Your task to perform on an android device: turn on improve location accuracy Image 0: 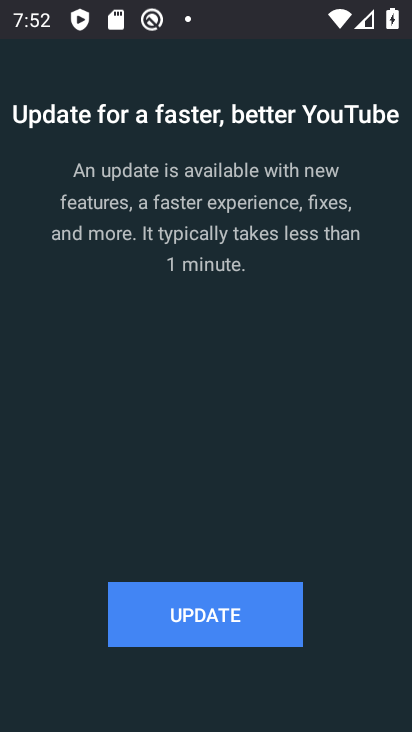
Step 0: press home button
Your task to perform on an android device: turn on improve location accuracy Image 1: 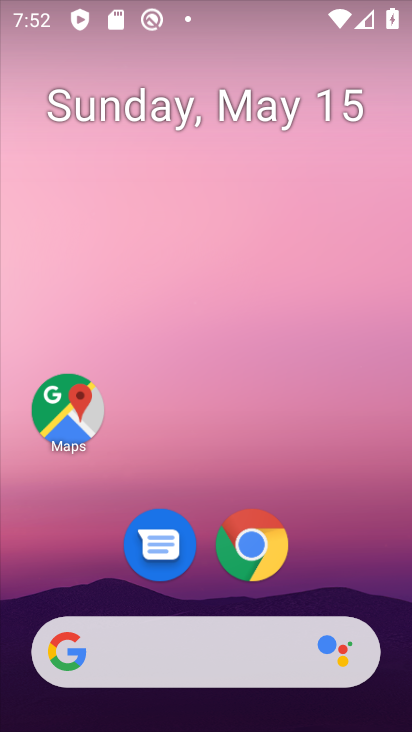
Step 1: drag from (353, 566) to (369, 68)
Your task to perform on an android device: turn on improve location accuracy Image 2: 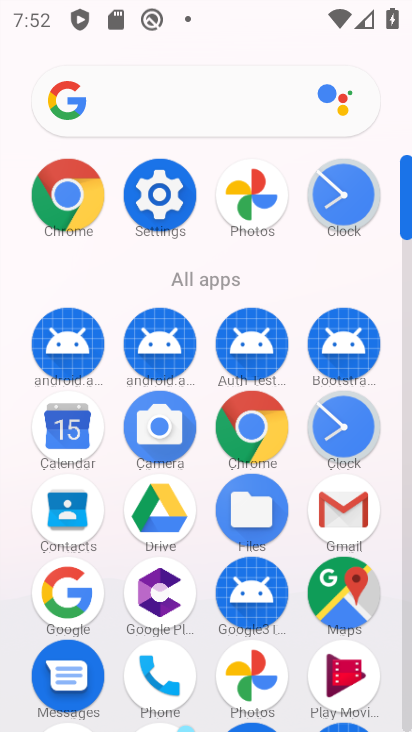
Step 2: click (172, 208)
Your task to perform on an android device: turn on improve location accuracy Image 3: 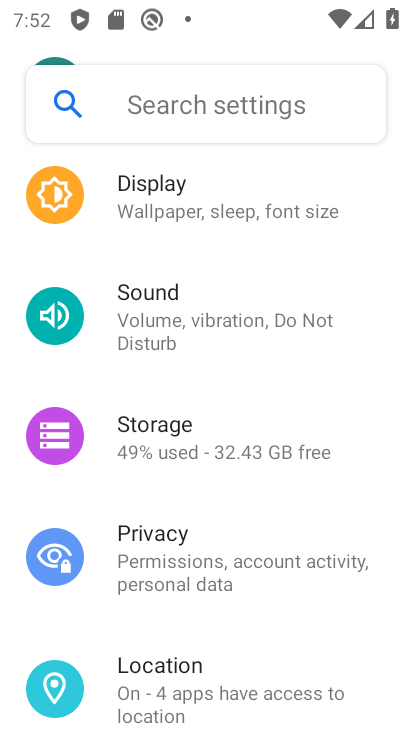
Step 3: drag from (389, 218) to (377, 430)
Your task to perform on an android device: turn on improve location accuracy Image 4: 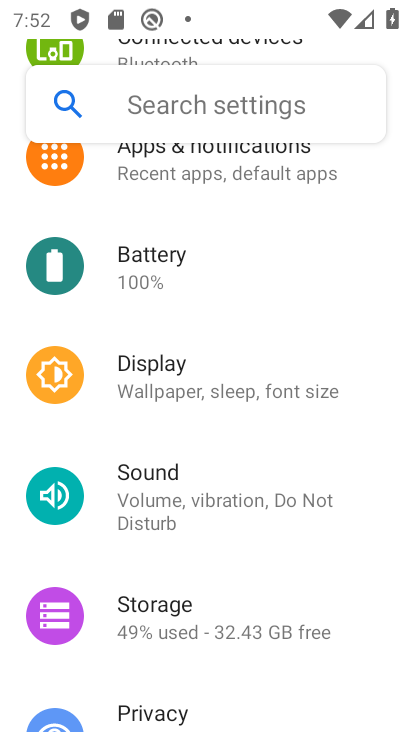
Step 4: drag from (359, 226) to (332, 483)
Your task to perform on an android device: turn on improve location accuracy Image 5: 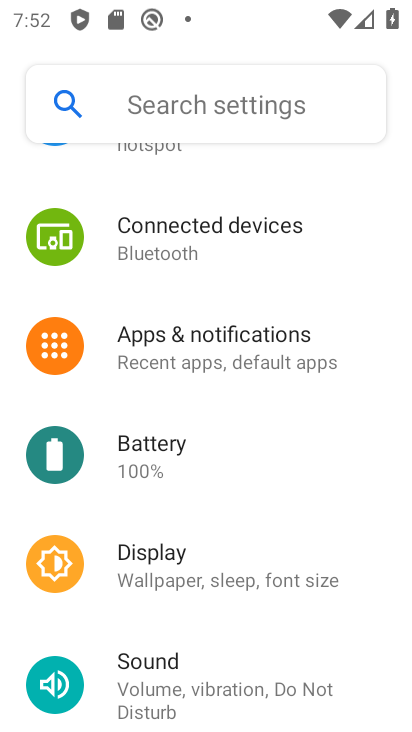
Step 5: drag from (371, 502) to (370, 337)
Your task to perform on an android device: turn on improve location accuracy Image 6: 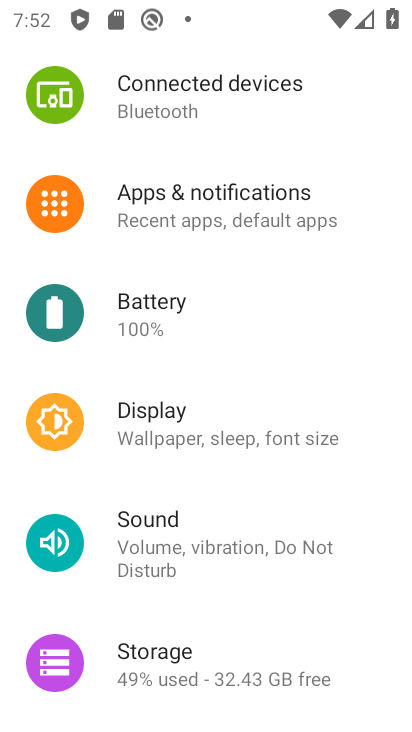
Step 6: drag from (373, 607) to (367, 354)
Your task to perform on an android device: turn on improve location accuracy Image 7: 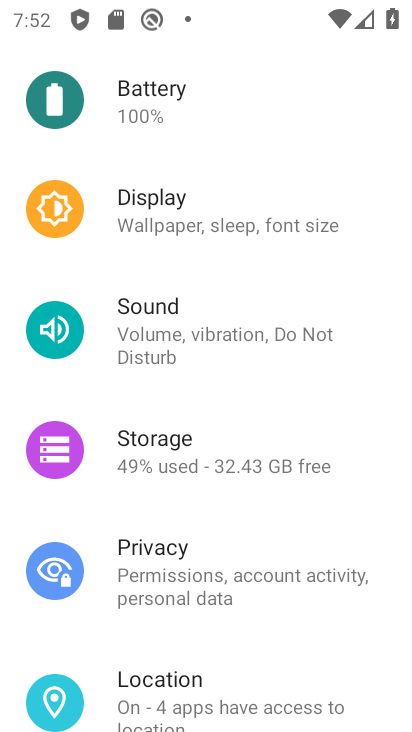
Step 7: drag from (364, 668) to (384, 407)
Your task to perform on an android device: turn on improve location accuracy Image 8: 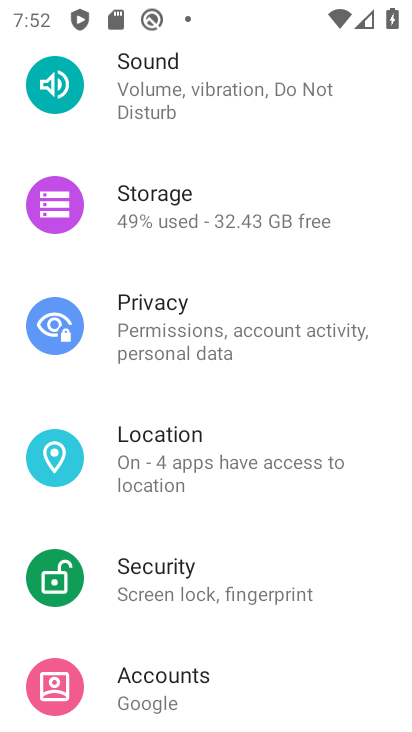
Step 8: drag from (373, 678) to (362, 469)
Your task to perform on an android device: turn on improve location accuracy Image 9: 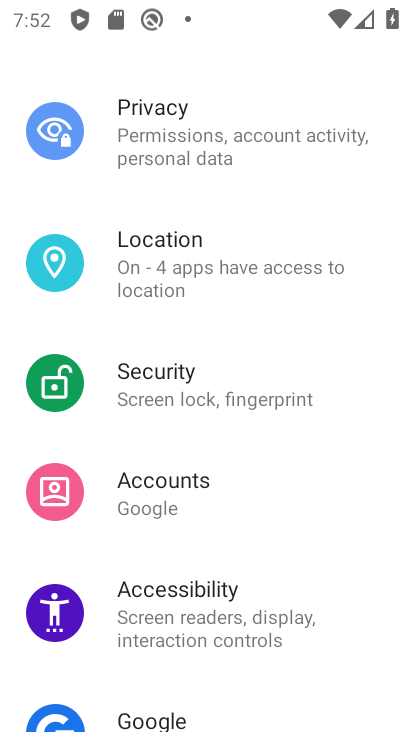
Step 9: click (208, 249)
Your task to perform on an android device: turn on improve location accuracy Image 10: 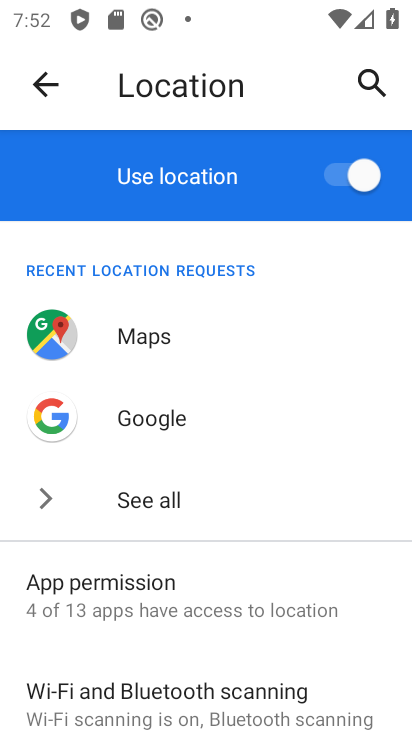
Step 10: drag from (266, 612) to (278, 409)
Your task to perform on an android device: turn on improve location accuracy Image 11: 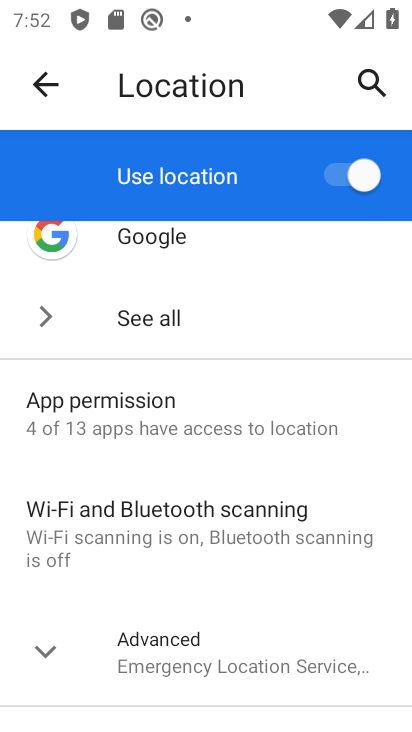
Step 11: drag from (297, 606) to (295, 348)
Your task to perform on an android device: turn on improve location accuracy Image 12: 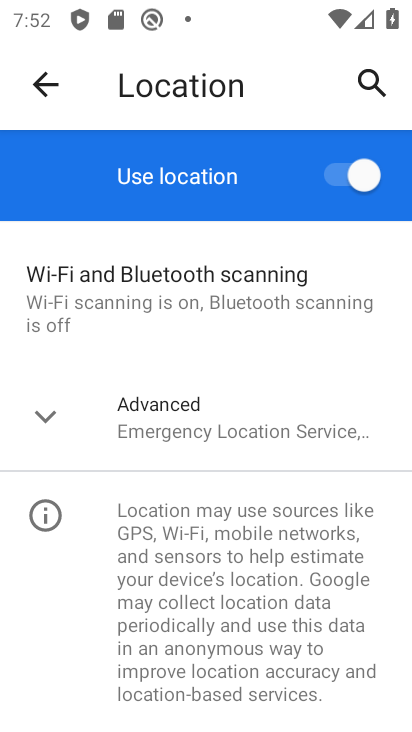
Step 12: click (232, 421)
Your task to perform on an android device: turn on improve location accuracy Image 13: 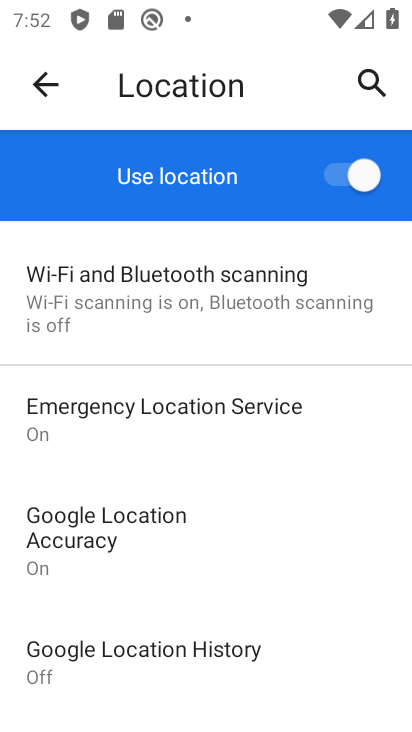
Step 13: drag from (306, 603) to (317, 445)
Your task to perform on an android device: turn on improve location accuracy Image 14: 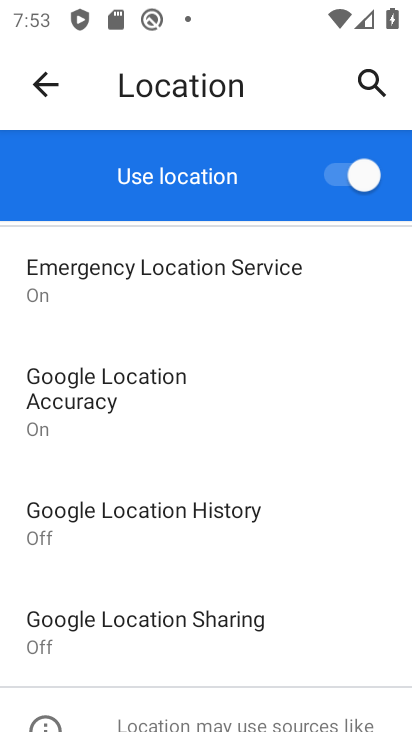
Step 14: click (123, 392)
Your task to perform on an android device: turn on improve location accuracy Image 15: 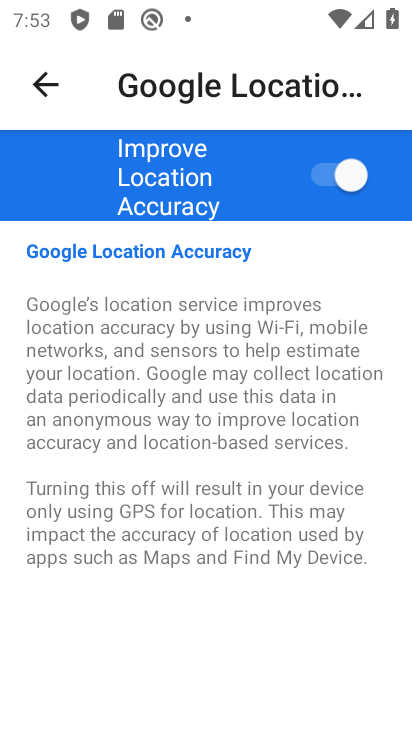
Step 15: task complete